Your task to perform on an android device: Check the weather Image 0: 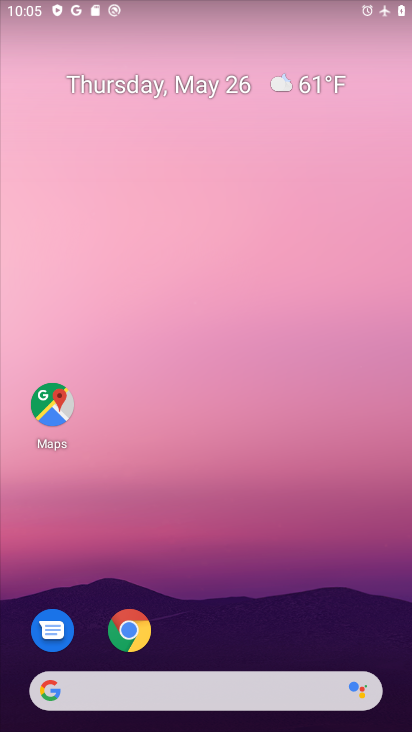
Step 0: click (198, 675)
Your task to perform on an android device: Check the weather Image 1: 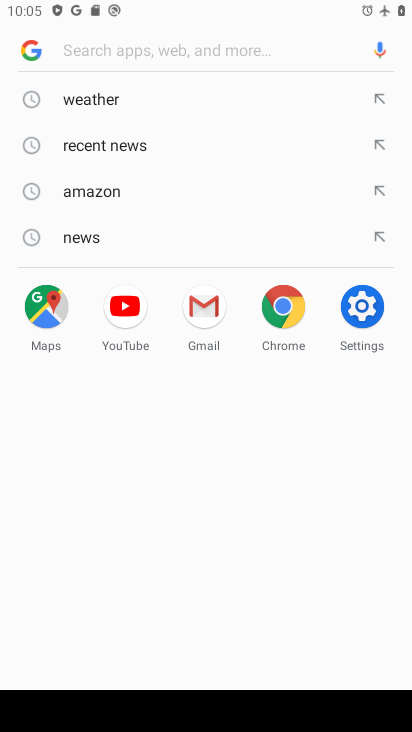
Step 1: click (98, 103)
Your task to perform on an android device: Check the weather Image 2: 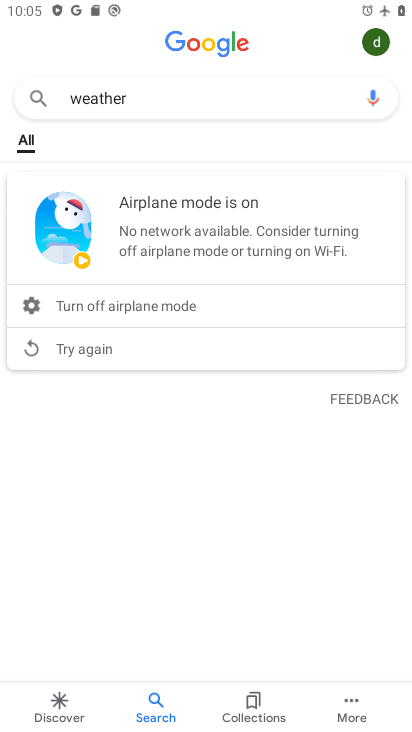
Step 2: task complete